Your task to perform on an android device: How do I get to the nearest Apple Store? Image 0: 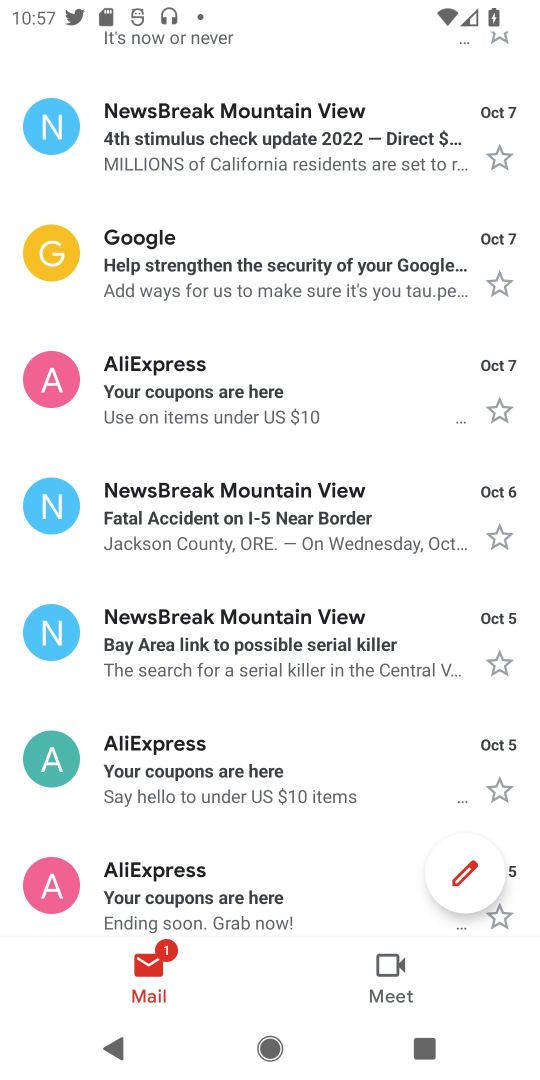
Step 0: press home button
Your task to perform on an android device: How do I get to the nearest Apple Store? Image 1: 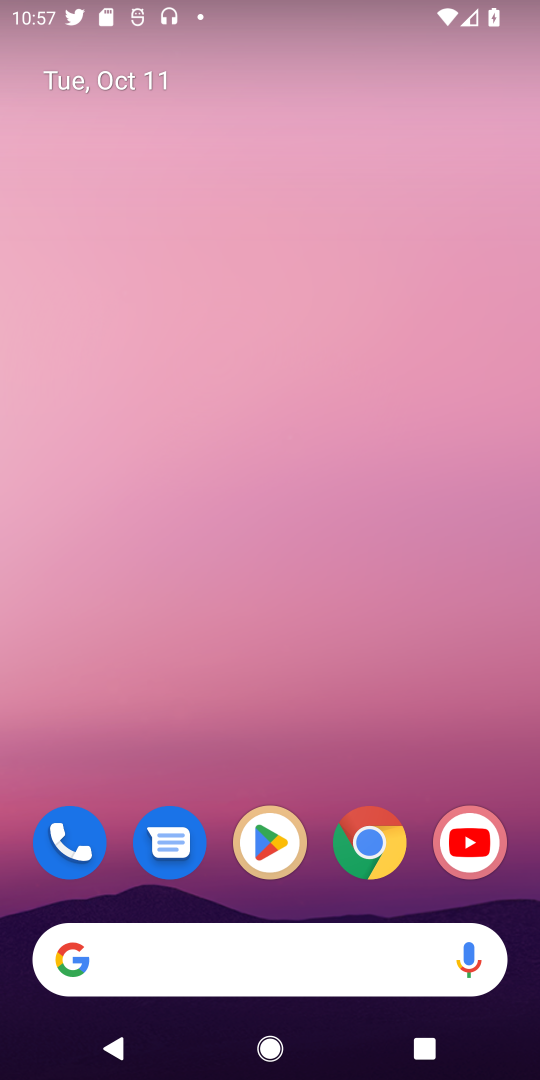
Step 1: click (388, 841)
Your task to perform on an android device: How do I get to the nearest Apple Store? Image 2: 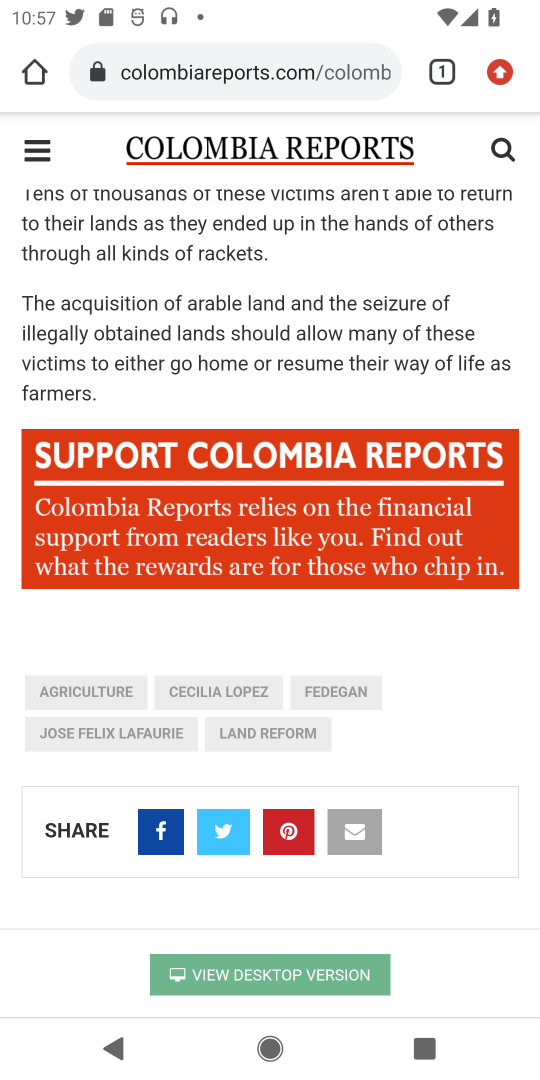
Step 2: click (204, 71)
Your task to perform on an android device: How do I get to the nearest Apple Store? Image 3: 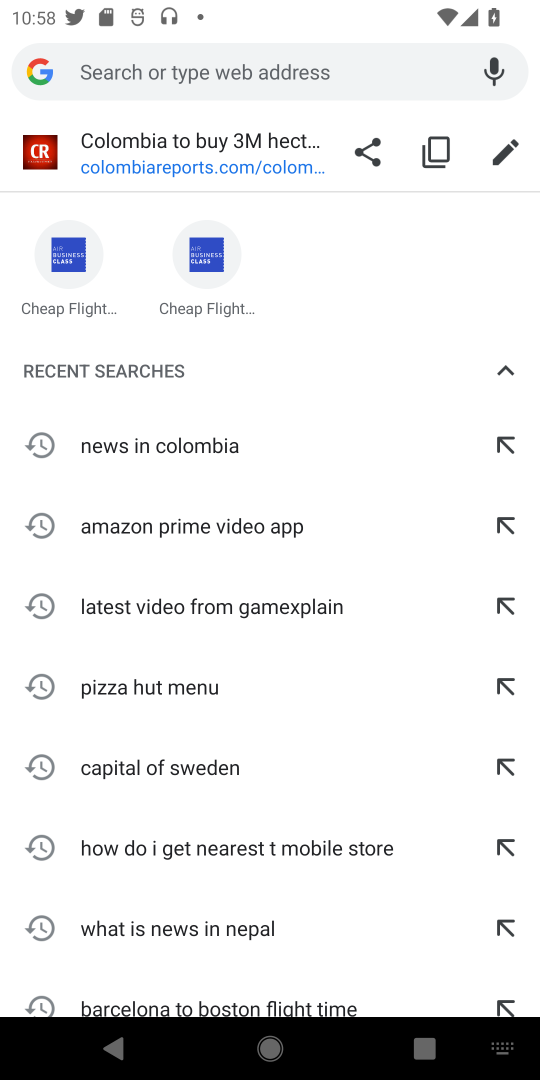
Step 3: type "nearest apple store"
Your task to perform on an android device: How do I get to the nearest Apple Store? Image 4: 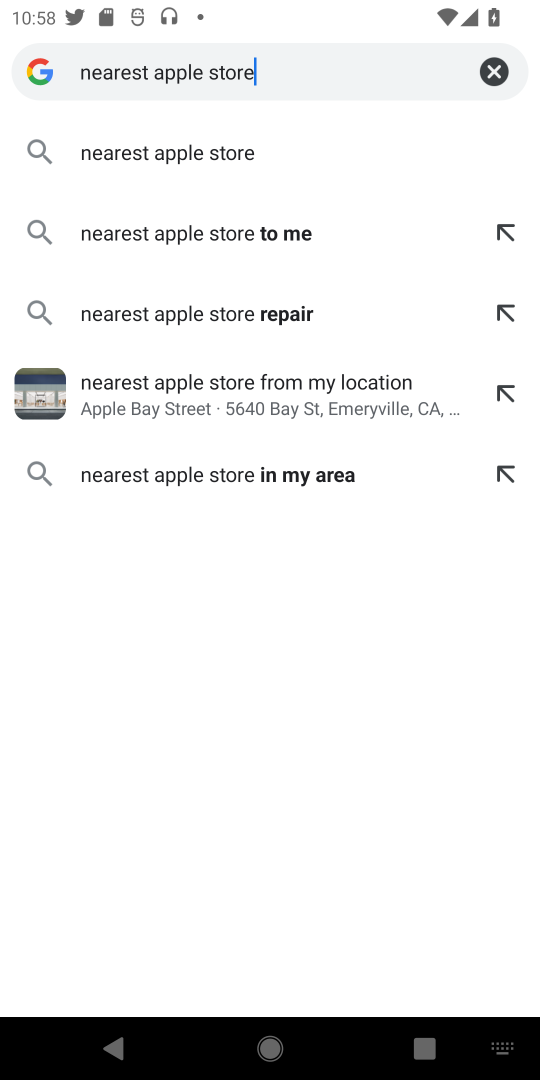
Step 4: click (243, 230)
Your task to perform on an android device: How do I get to the nearest Apple Store? Image 5: 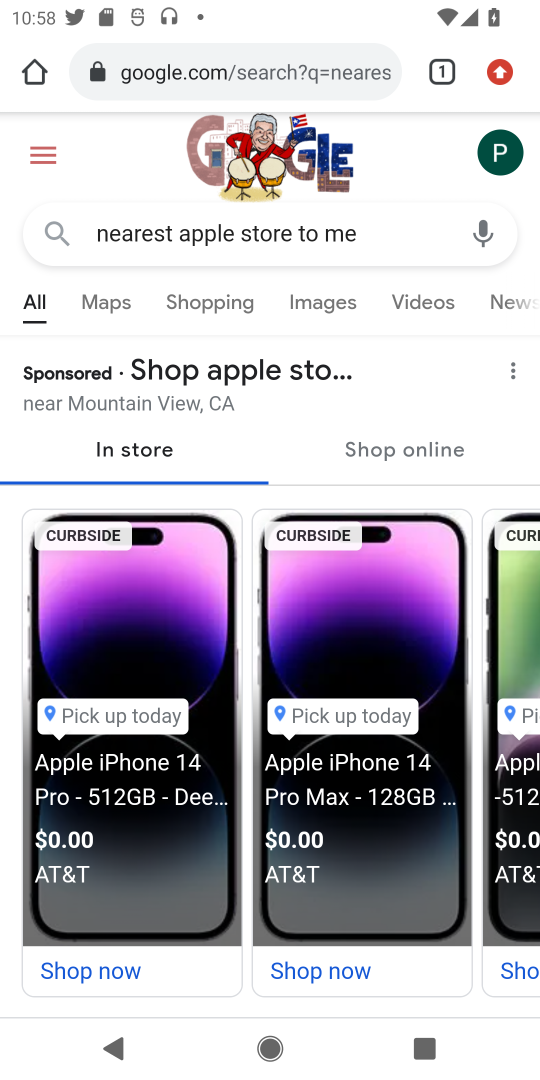
Step 5: drag from (134, 916) to (238, 330)
Your task to perform on an android device: How do I get to the nearest Apple Store? Image 6: 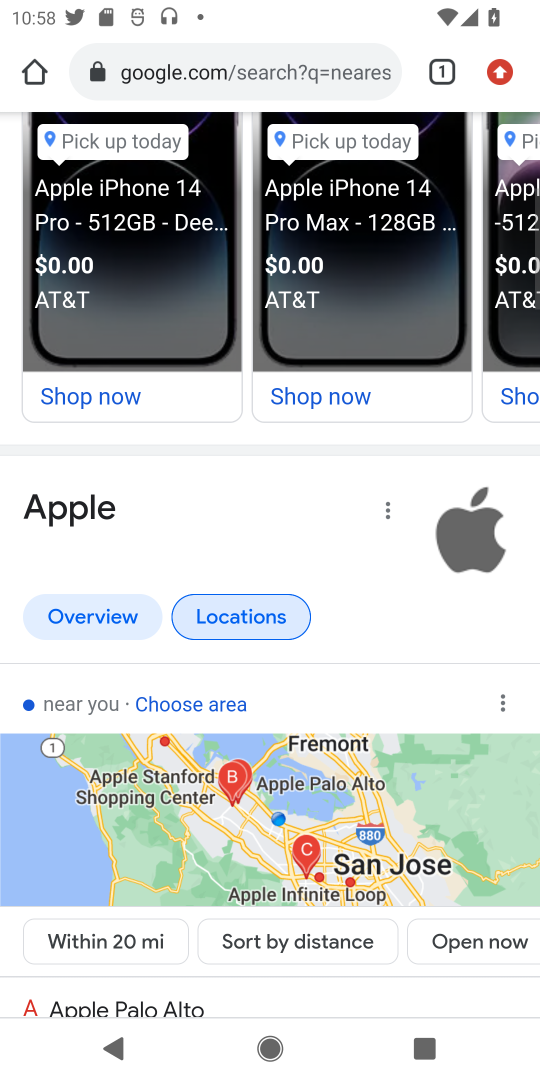
Step 6: drag from (229, 745) to (332, 313)
Your task to perform on an android device: How do I get to the nearest Apple Store? Image 7: 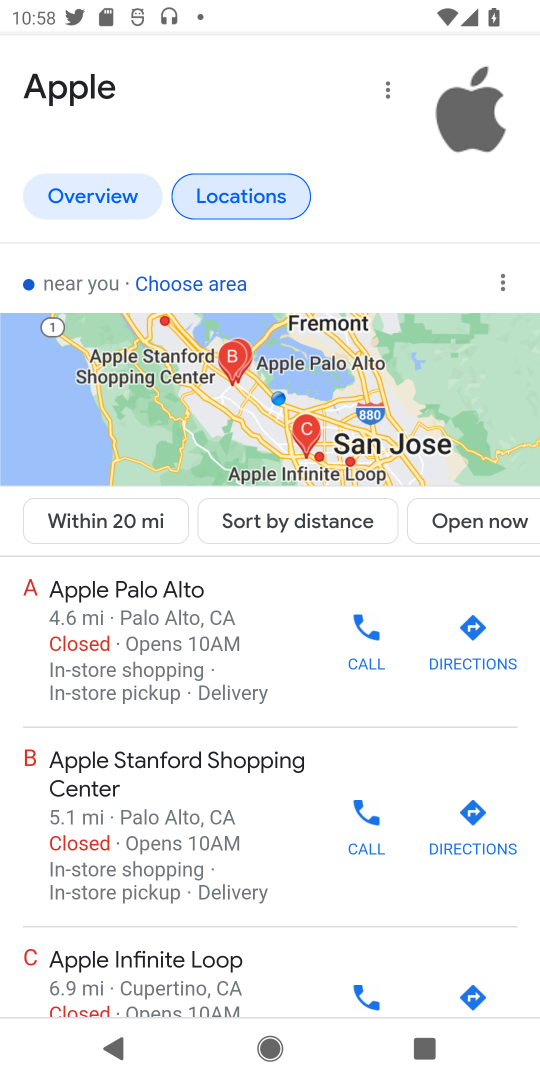
Step 7: drag from (231, 716) to (347, 293)
Your task to perform on an android device: How do I get to the nearest Apple Store? Image 8: 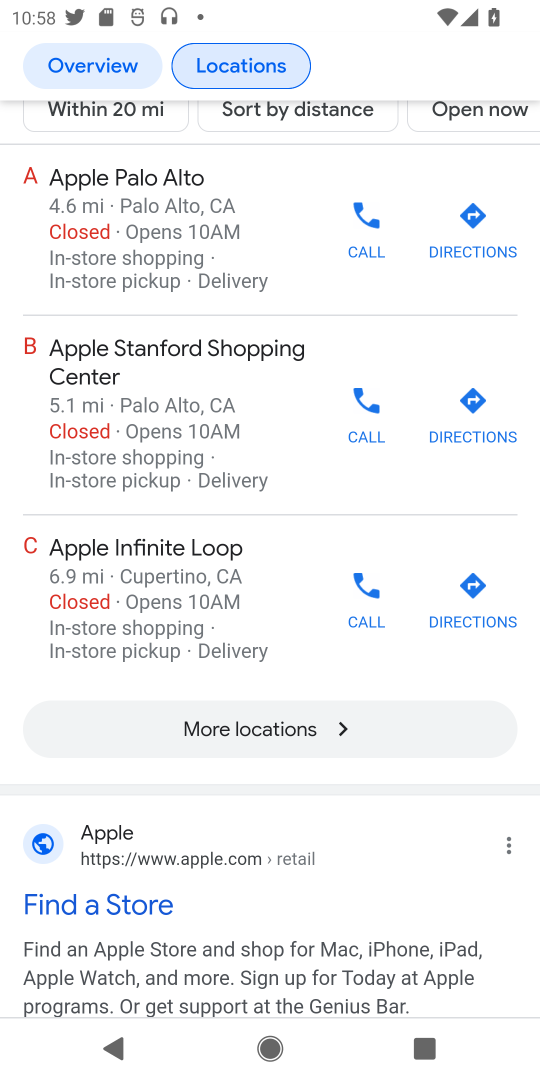
Step 8: click (149, 915)
Your task to perform on an android device: How do I get to the nearest Apple Store? Image 9: 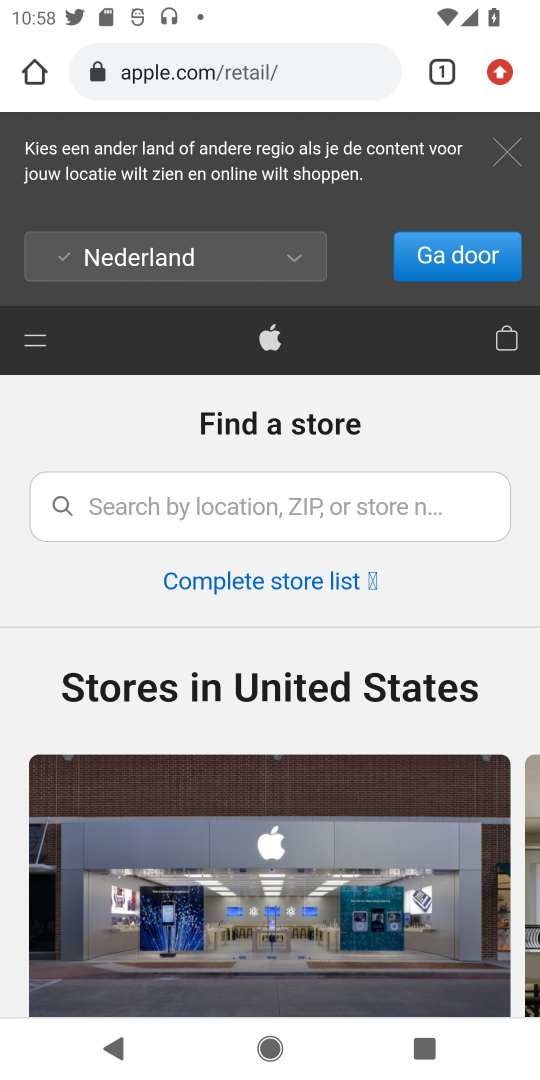
Step 9: task complete